Your task to perform on an android device: turn pop-ups on in chrome Image 0: 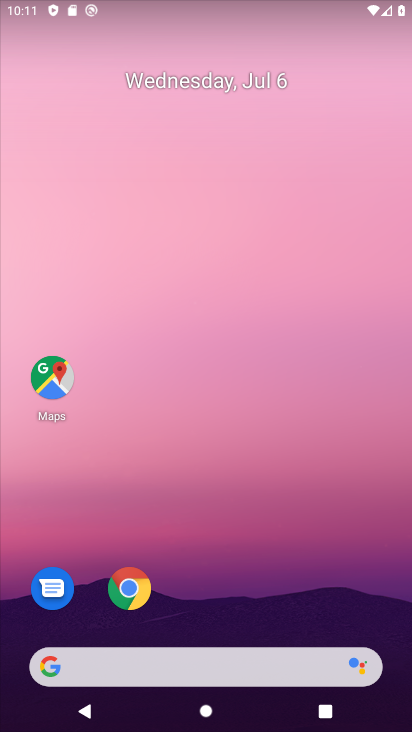
Step 0: click (124, 595)
Your task to perform on an android device: turn pop-ups on in chrome Image 1: 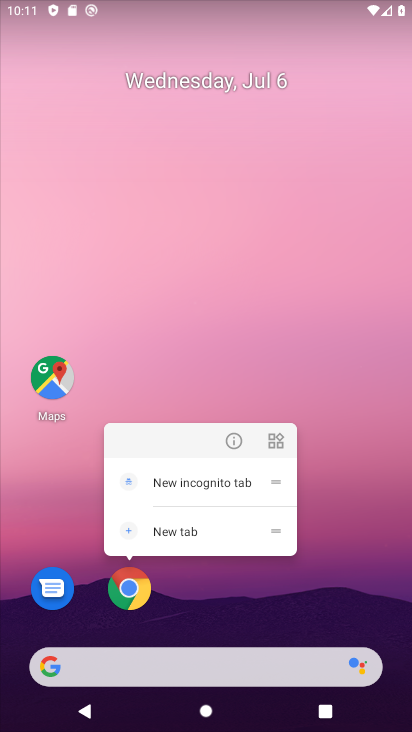
Step 1: click (125, 591)
Your task to perform on an android device: turn pop-ups on in chrome Image 2: 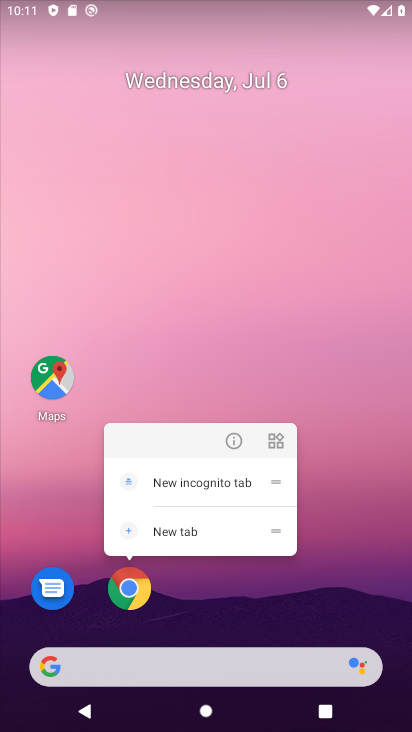
Step 2: click (136, 586)
Your task to perform on an android device: turn pop-ups on in chrome Image 3: 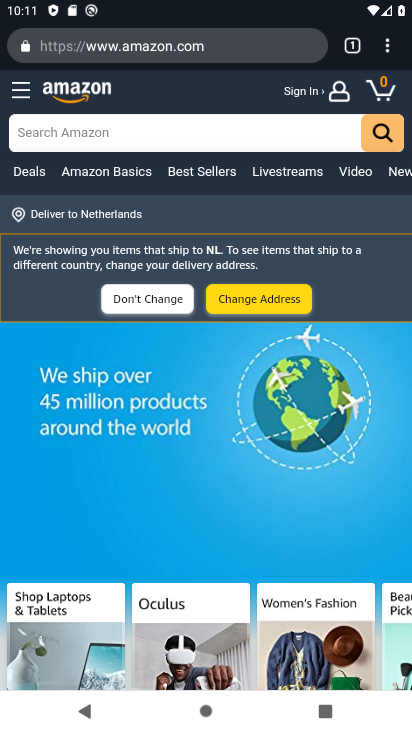
Step 3: click (383, 58)
Your task to perform on an android device: turn pop-ups on in chrome Image 4: 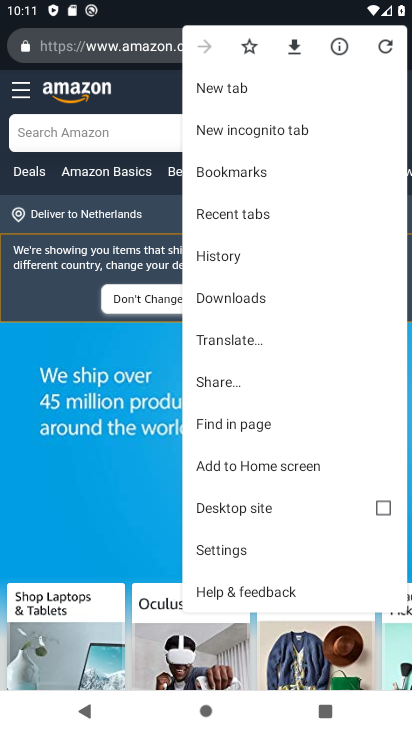
Step 4: click (202, 543)
Your task to perform on an android device: turn pop-ups on in chrome Image 5: 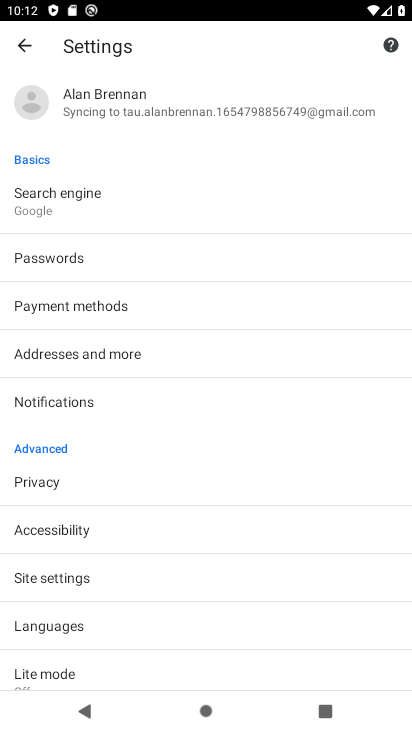
Step 5: click (54, 575)
Your task to perform on an android device: turn pop-ups on in chrome Image 6: 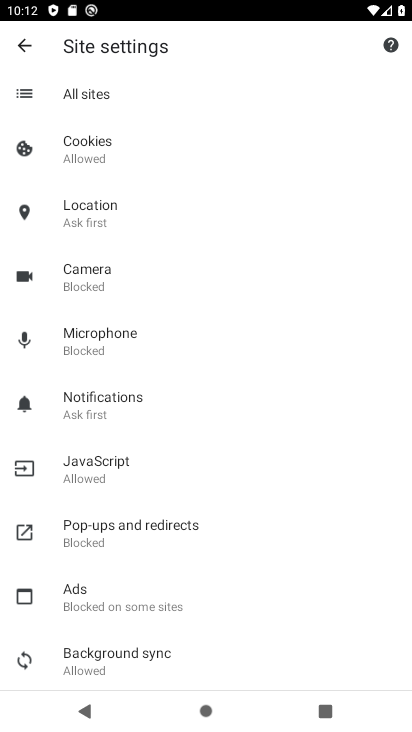
Step 6: click (157, 526)
Your task to perform on an android device: turn pop-ups on in chrome Image 7: 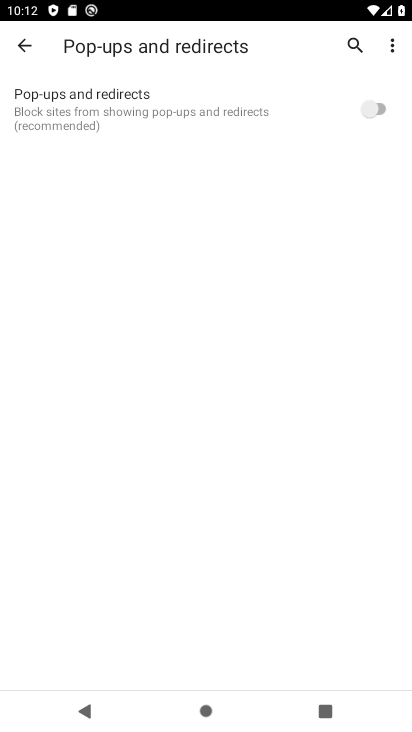
Step 7: click (379, 96)
Your task to perform on an android device: turn pop-ups on in chrome Image 8: 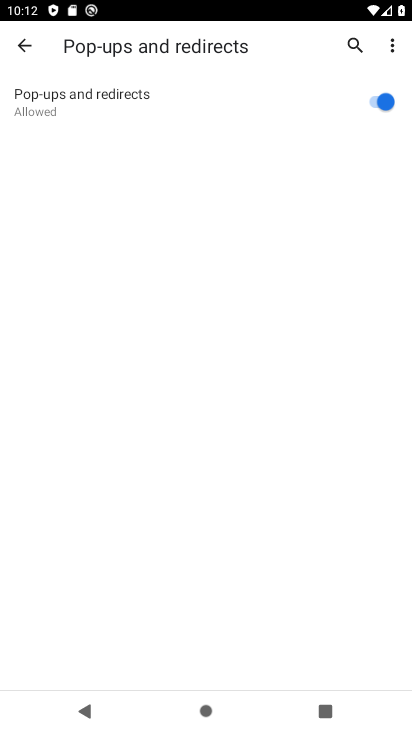
Step 8: task complete